Your task to perform on an android device: change the clock style Image 0: 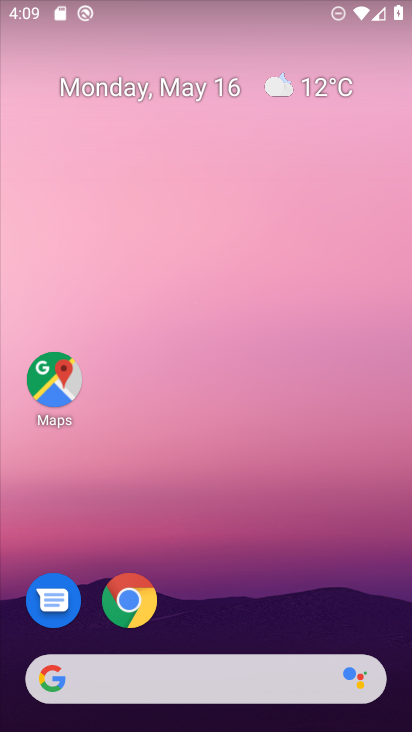
Step 0: drag from (275, 370) to (246, 101)
Your task to perform on an android device: change the clock style Image 1: 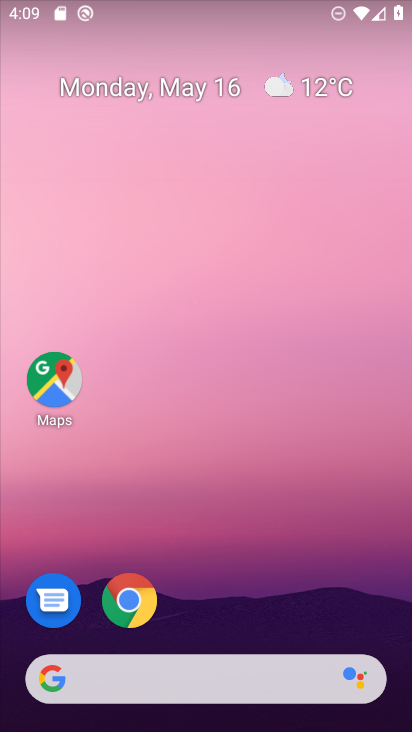
Step 1: drag from (384, 393) to (175, 71)
Your task to perform on an android device: change the clock style Image 2: 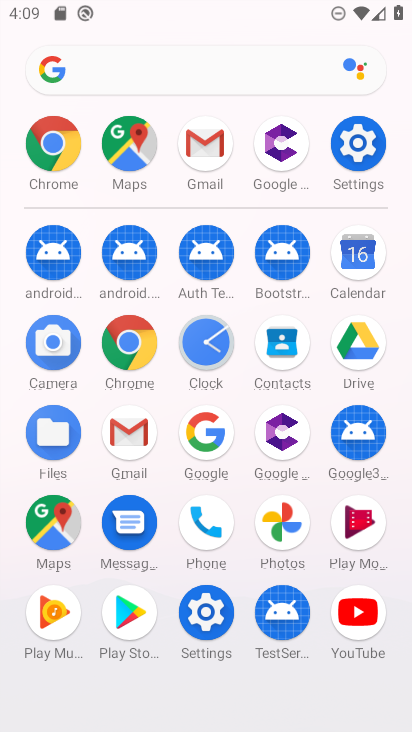
Step 2: click (216, 343)
Your task to perform on an android device: change the clock style Image 3: 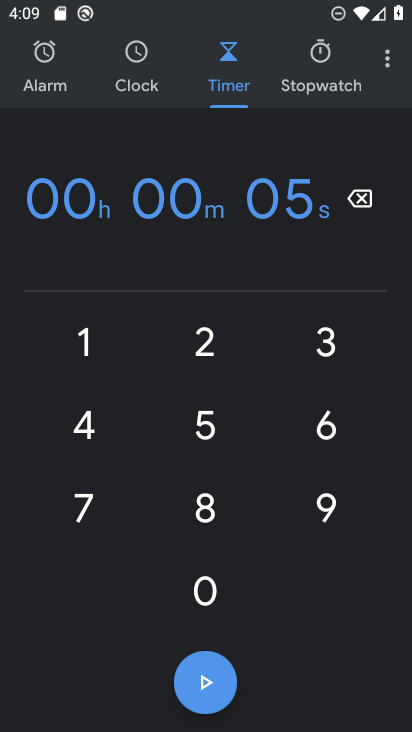
Step 3: click (396, 54)
Your task to perform on an android device: change the clock style Image 4: 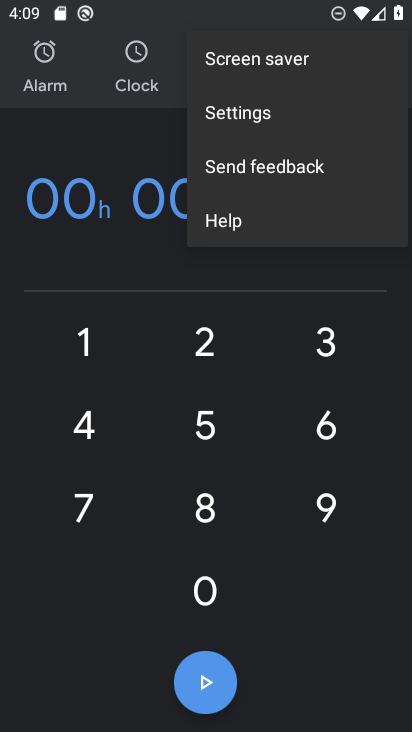
Step 4: click (264, 115)
Your task to perform on an android device: change the clock style Image 5: 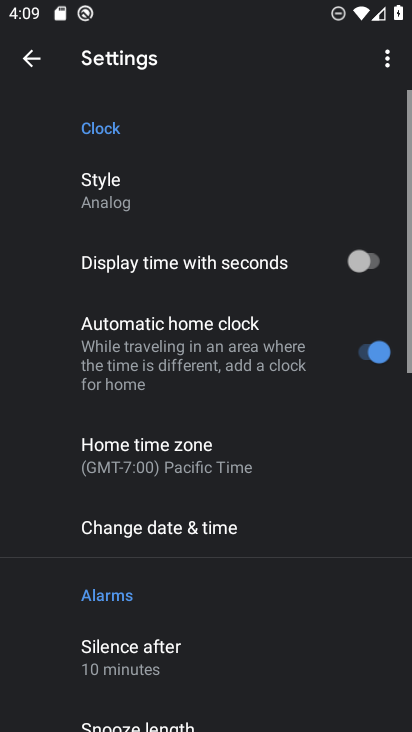
Step 5: click (143, 206)
Your task to perform on an android device: change the clock style Image 6: 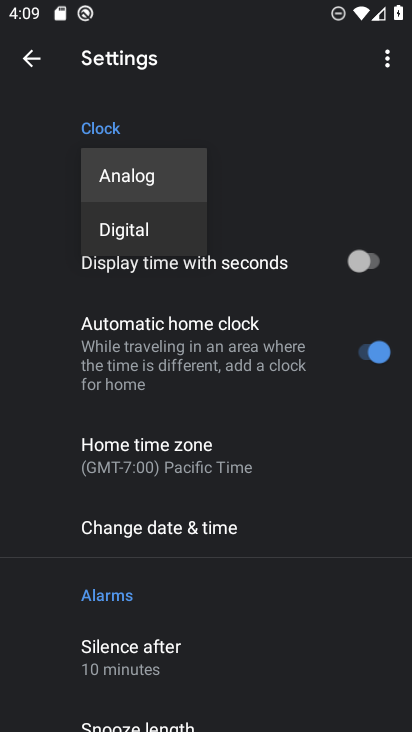
Step 6: click (140, 229)
Your task to perform on an android device: change the clock style Image 7: 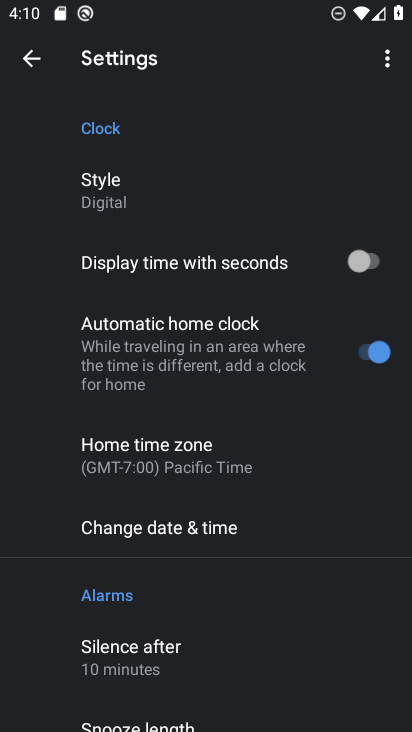
Step 7: click (113, 182)
Your task to perform on an android device: change the clock style Image 8: 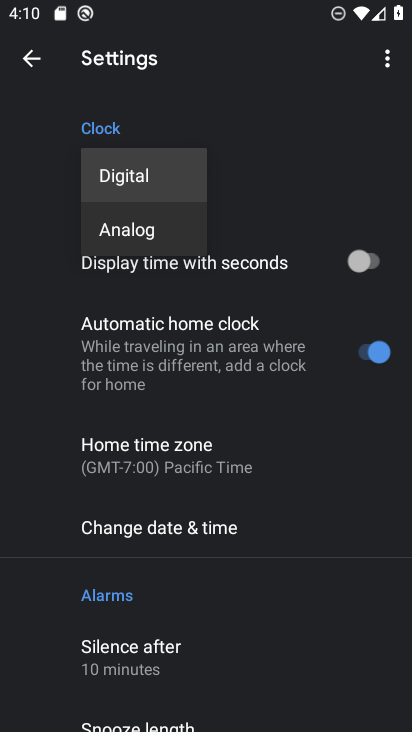
Step 8: click (151, 247)
Your task to perform on an android device: change the clock style Image 9: 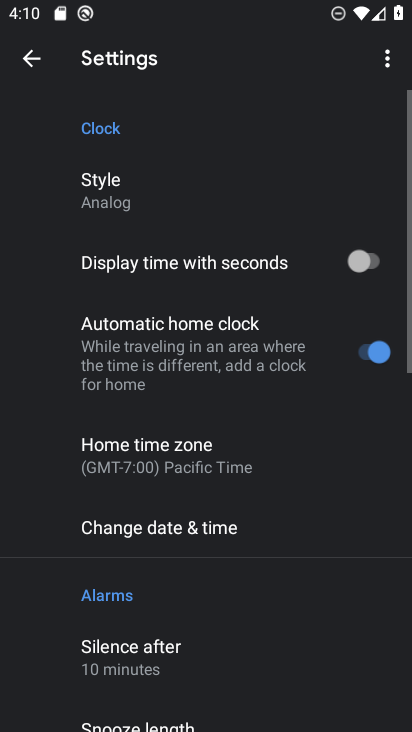
Step 9: task complete